Your task to perform on an android device: Open Youtube and go to the subscriptions tab Image 0: 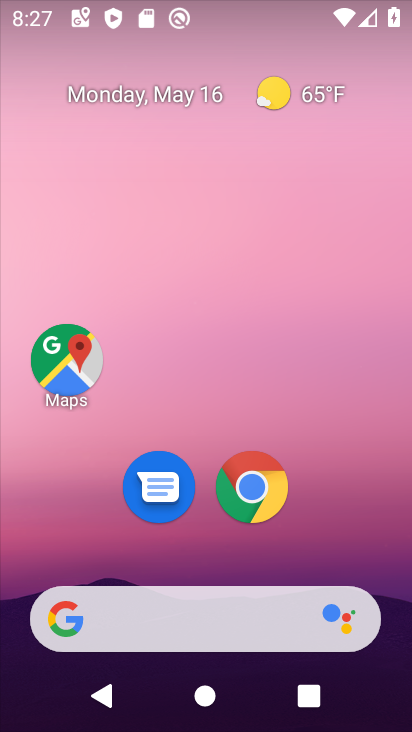
Step 0: drag from (376, 540) to (369, 106)
Your task to perform on an android device: Open Youtube and go to the subscriptions tab Image 1: 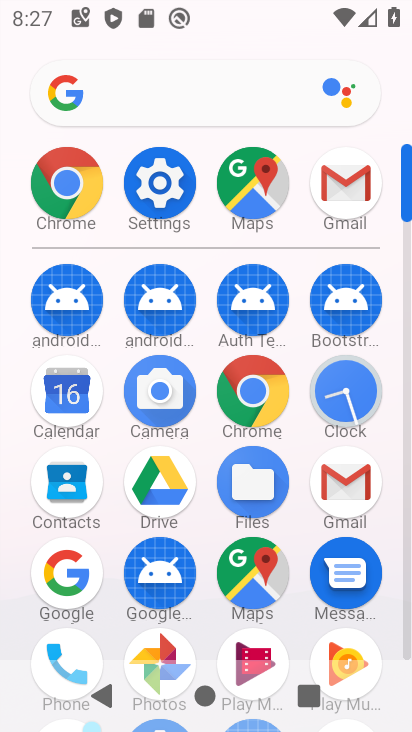
Step 1: drag from (202, 531) to (206, 313)
Your task to perform on an android device: Open Youtube and go to the subscriptions tab Image 2: 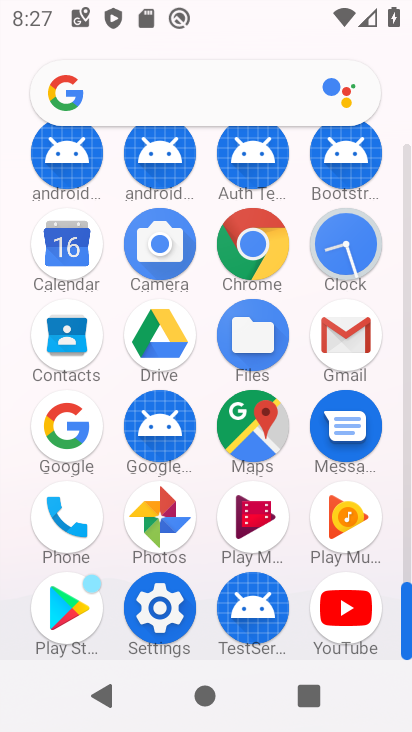
Step 2: click (349, 613)
Your task to perform on an android device: Open Youtube and go to the subscriptions tab Image 3: 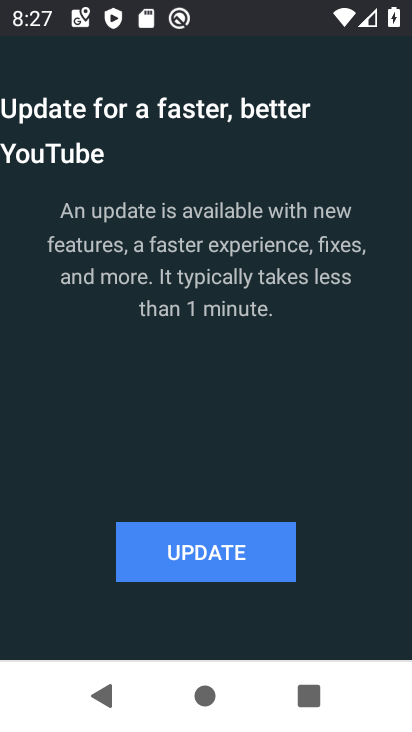
Step 3: click (222, 578)
Your task to perform on an android device: Open Youtube and go to the subscriptions tab Image 4: 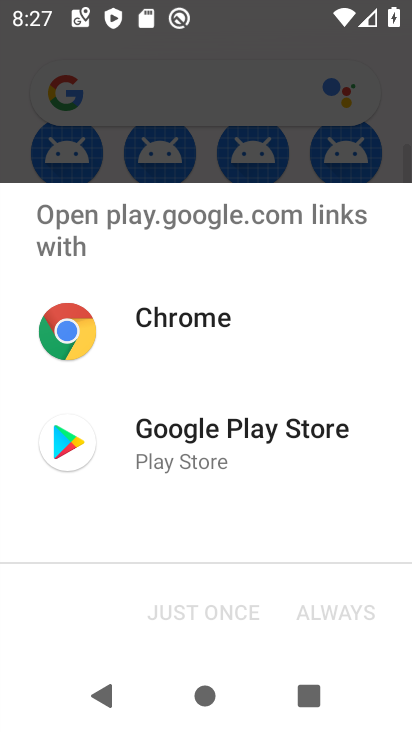
Step 4: click (204, 428)
Your task to perform on an android device: Open Youtube and go to the subscriptions tab Image 5: 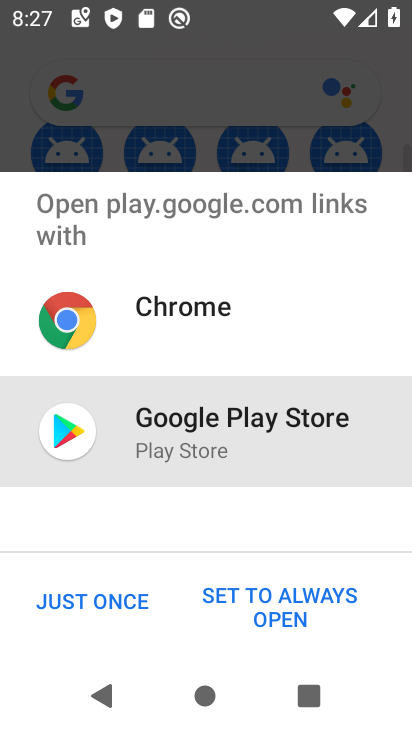
Step 5: click (105, 602)
Your task to perform on an android device: Open Youtube and go to the subscriptions tab Image 6: 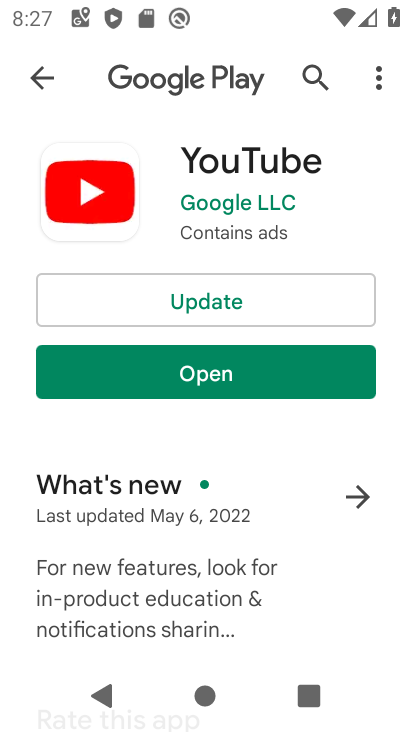
Step 6: click (219, 316)
Your task to perform on an android device: Open Youtube and go to the subscriptions tab Image 7: 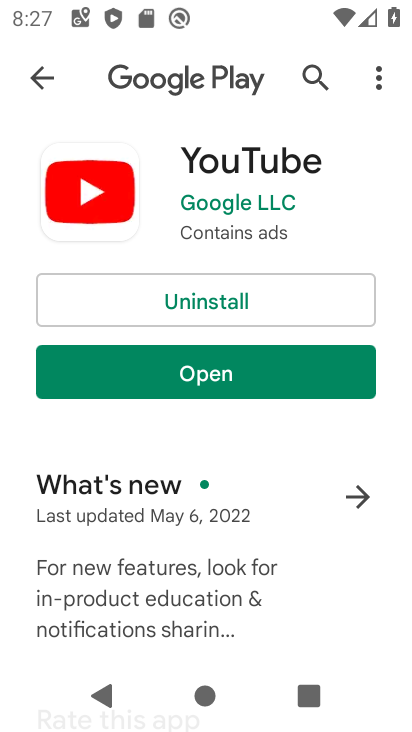
Step 7: click (232, 370)
Your task to perform on an android device: Open Youtube and go to the subscriptions tab Image 8: 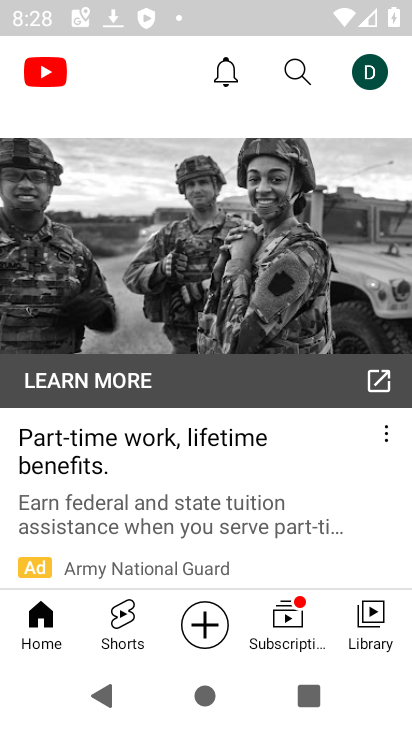
Step 8: click (281, 614)
Your task to perform on an android device: Open Youtube and go to the subscriptions tab Image 9: 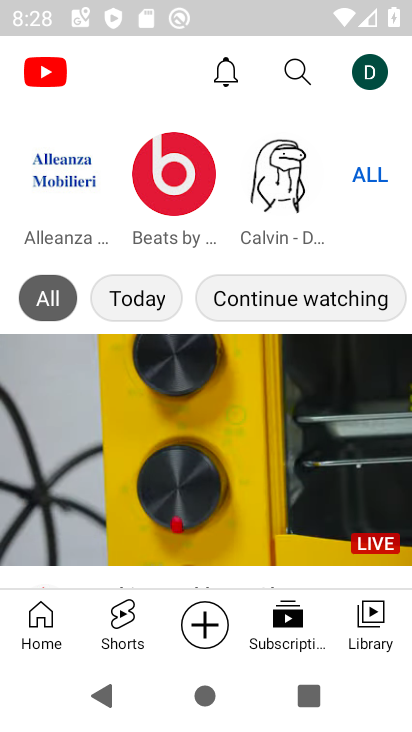
Step 9: task complete